Your task to perform on an android device: toggle javascript in the chrome app Image 0: 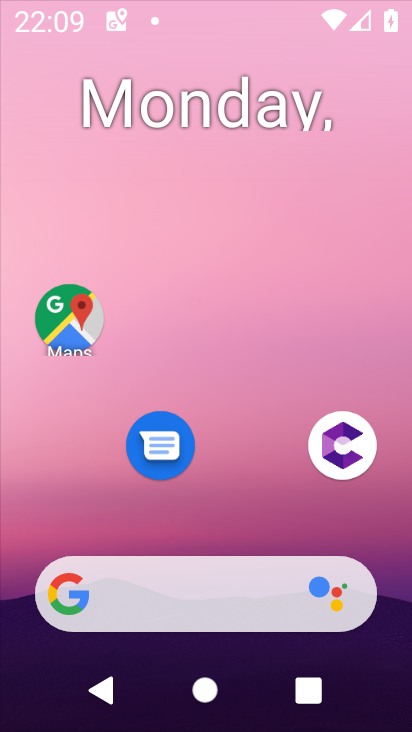
Step 0: press home button
Your task to perform on an android device: toggle javascript in the chrome app Image 1: 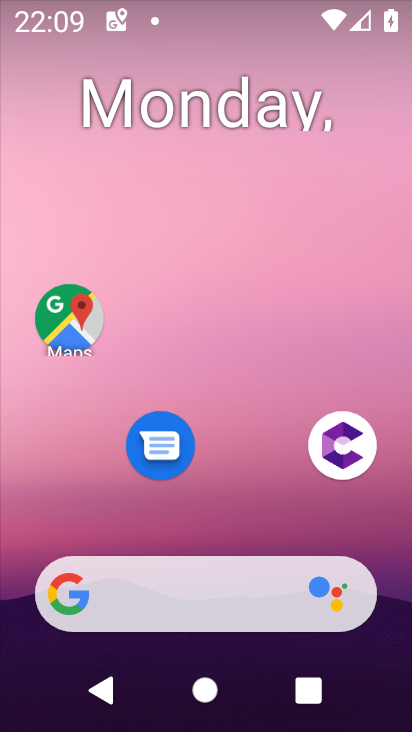
Step 1: drag from (245, 531) to (120, 6)
Your task to perform on an android device: toggle javascript in the chrome app Image 2: 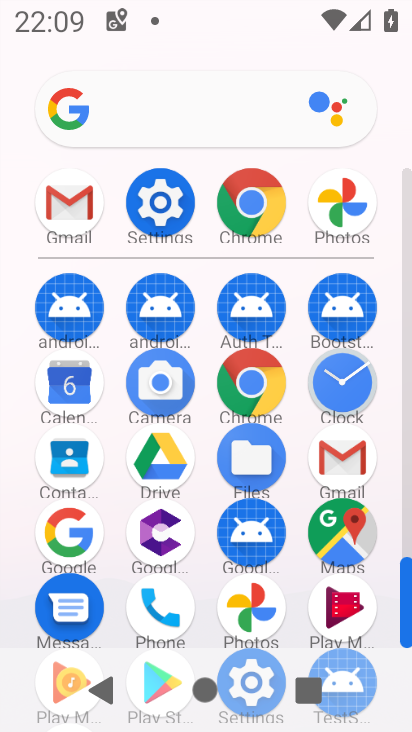
Step 2: click (249, 193)
Your task to perform on an android device: toggle javascript in the chrome app Image 3: 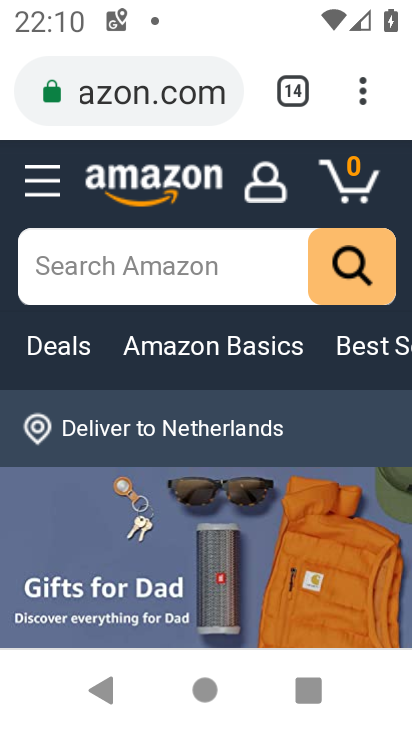
Step 3: drag from (362, 94) to (291, 472)
Your task to perform on an android device: toggle javascript in the chrome app Image 4: 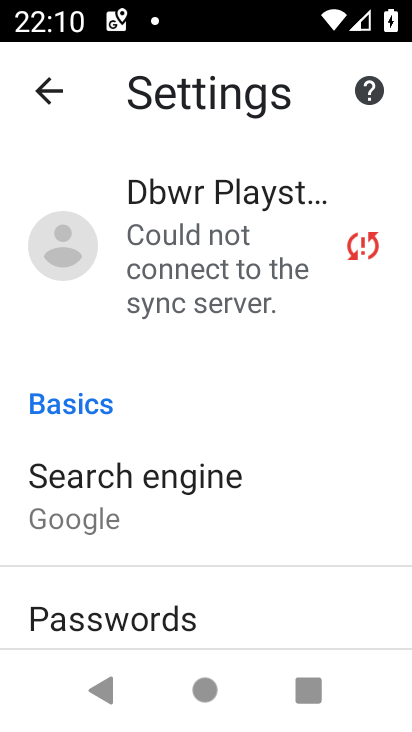
Step 4: drag from (314, 620) to (182, 14)
Your task to perform on an android device: toggle javascript in the chrome app Image 5: 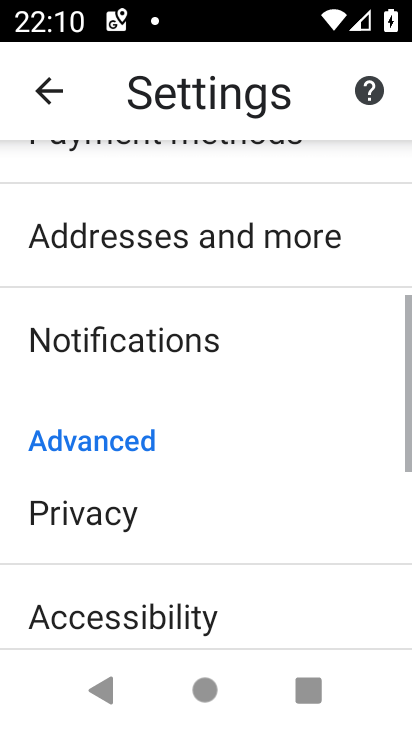
Step 5: drag from (327, 621) to (232, 240)
Your task to perform on an android device: toggle javascript in the chrome app Image 6: 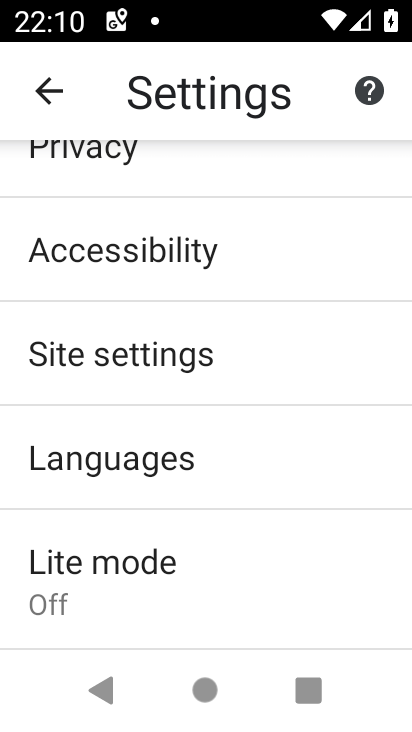
Step 6: click (140, 357)
Your task to perform on an android device: toggle javascript in the chrome app Image 7: 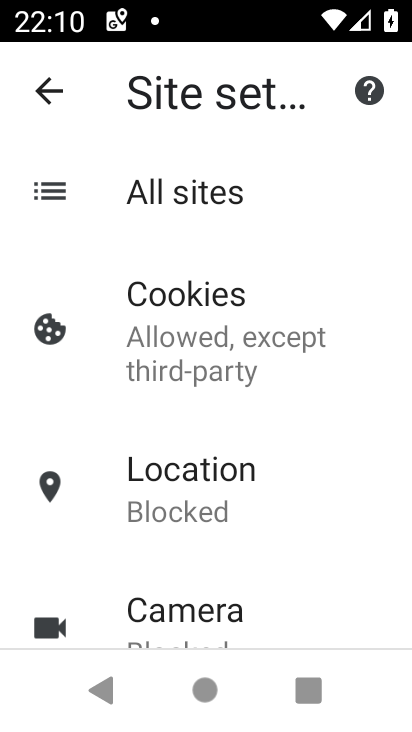
Step 7: drag from (288, 542) to (251, 27)
Your task to perform on an android device: toggle javascript in the chrome app Image 8: 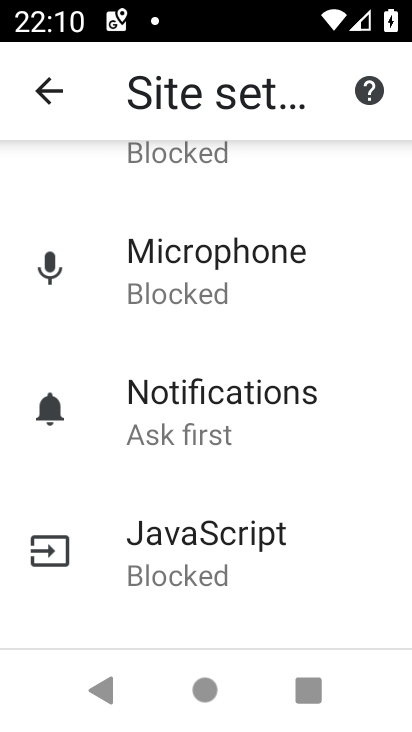
Step 8: click (208, 543)
Your task to perform on an android device: toggle javascript in the chrome app Image 9: 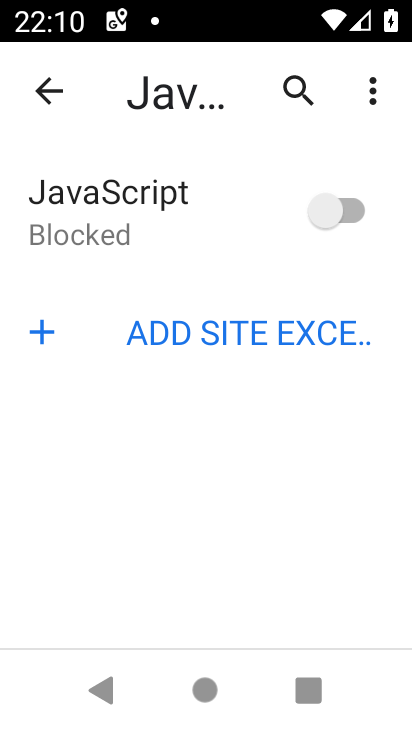
Step 9: click (330, 213)
Your task to perform on an android device: toggle javascript in the chrome app Image 10: 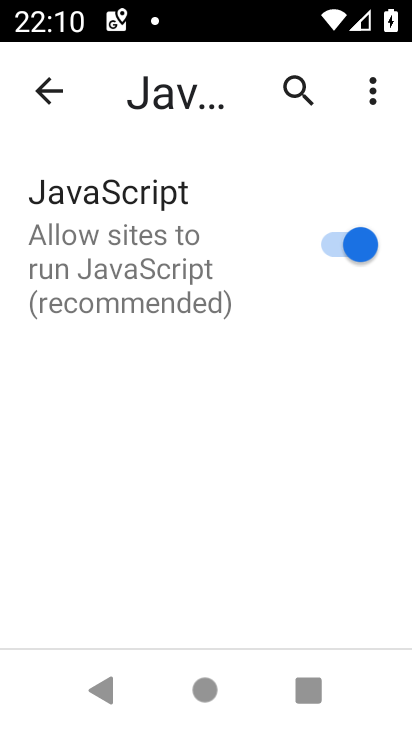
Step 10: task complete